Your task to perform on an android device: Show me popular videos on Youtube Image 0: 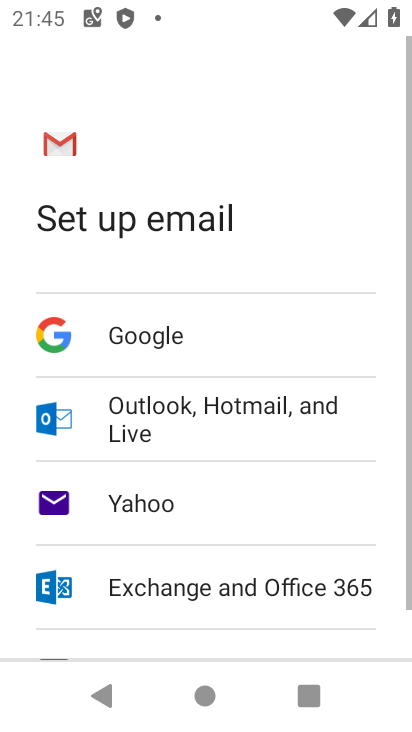
Step 0: press home button
Your task to perform on an android device: Show me popular videos on Youtube Image 1: 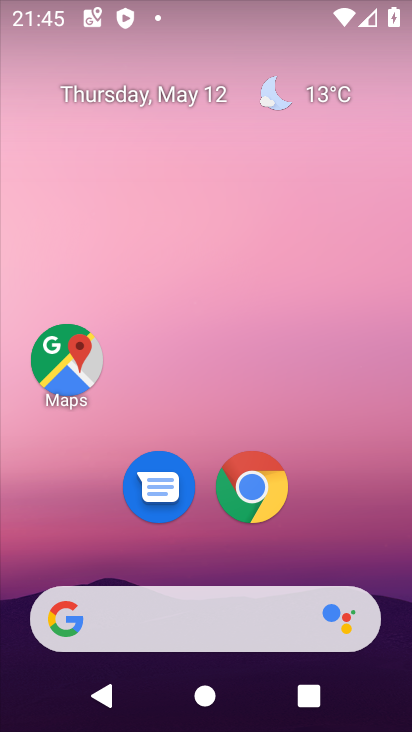
Step 1: drag from (236, 577) to (277, 171)
Your task to perform on an android device: Show me popular videos on Youtube Image 2: 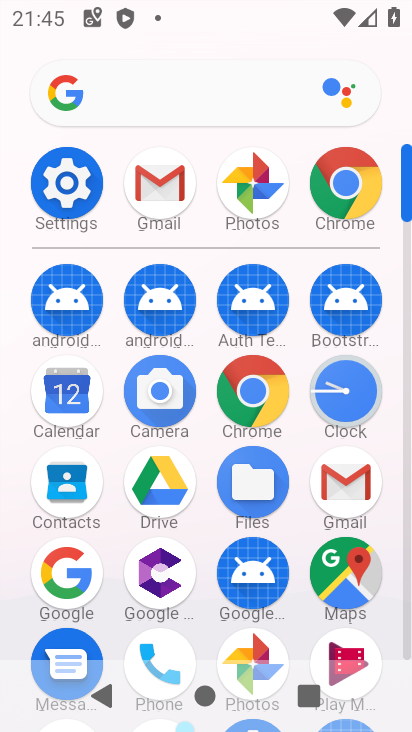
Step 2: drag from (232, 672) to (308, 254)
Your task to perform on an android device: Show me popular videos on Youtube Image 3: 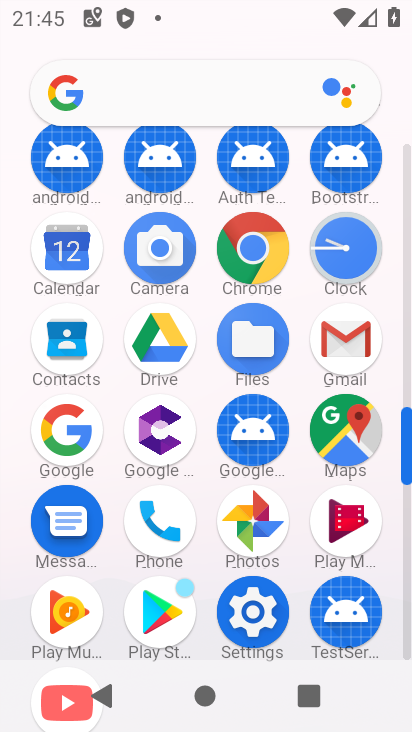
Step 3: drag from (111, 595) to (145, 240)
Your task to perform on an android device: Show me popular videos on Youtube Image 4: 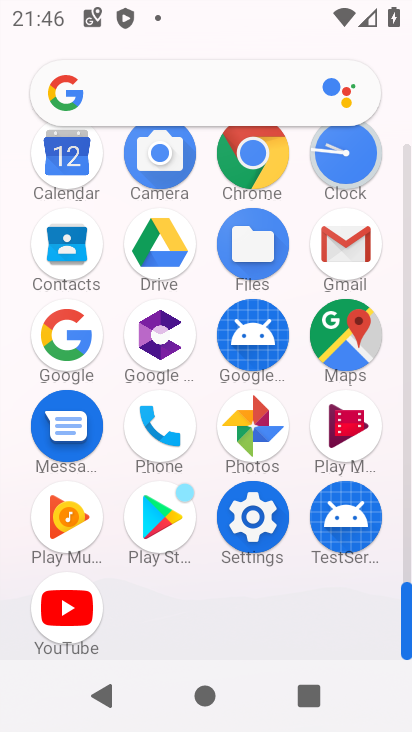
Step 4: click (65, 618)
Your task to perform on an android device: Show me popular videos on Youtube Image 5: 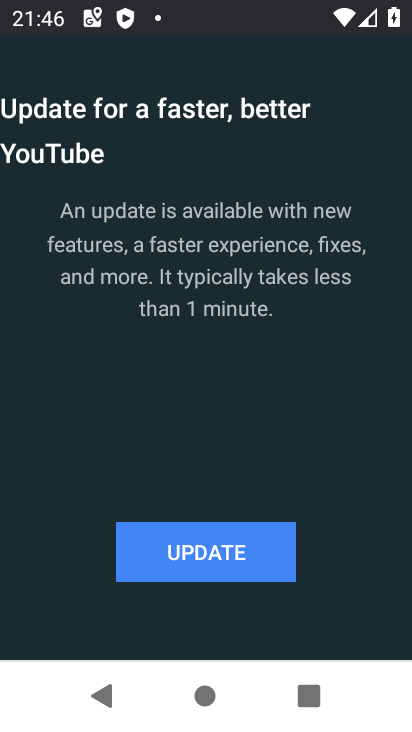
Step 5: click (65, 618)
Your task to perform on an android device: Show me popular videos on Youtube Image 6: 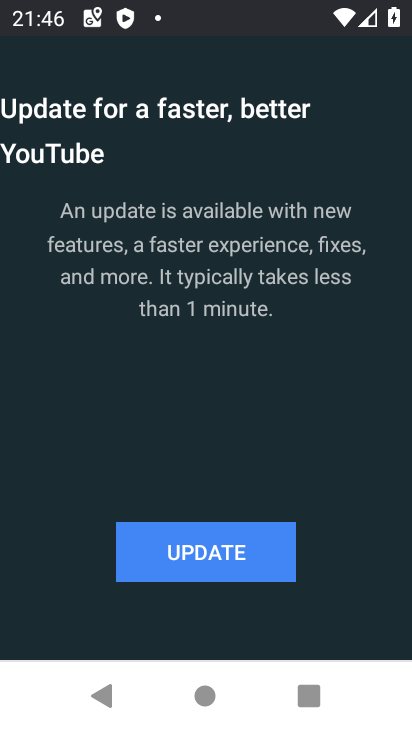
Step 6: click (167, 566)
Your task to perform on an android device: Show me popular videos on Youtube Image 7: 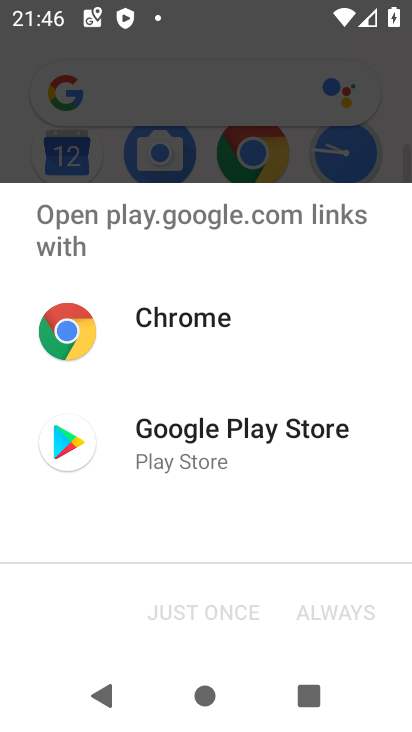
Step 7: click (250, 477)
Your task to perform on an android device: Show me popular videos on Youtube Image 8: 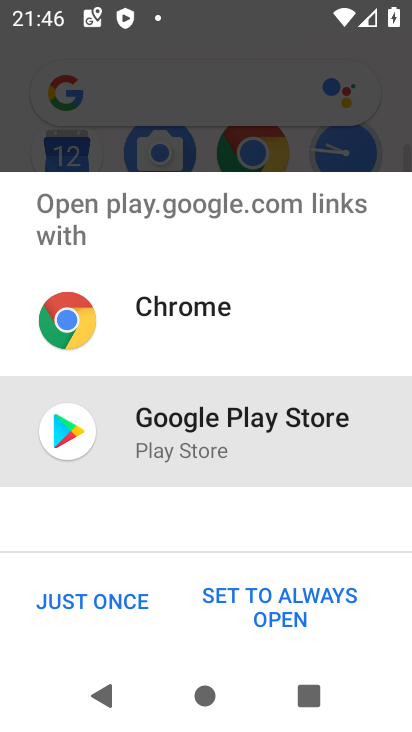
Step 8: click (128, 611)
Your task to perform on an android device: Show me popular videos on Youtube Image 9: 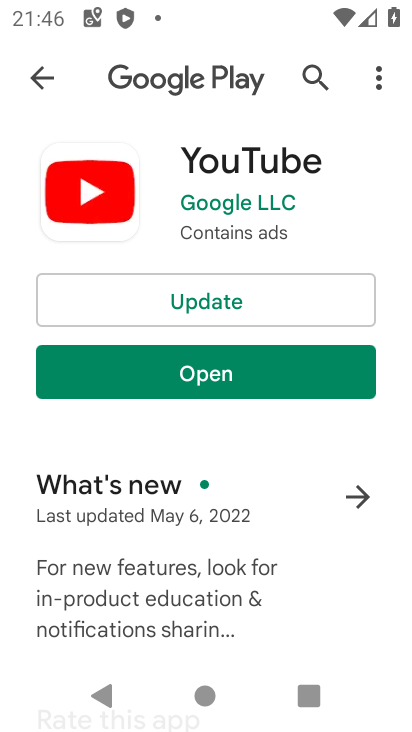
Step 9: click (253, 319)
Your task to perform on an android device: Show me popular videos on Youtube Image 10: 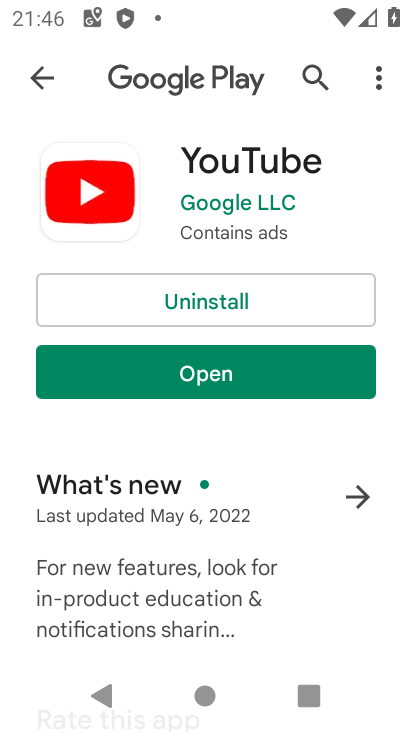
Step 10: click (201, 364)
Your task to perform on an android device: Show me popular videos on Youtube Image 11: 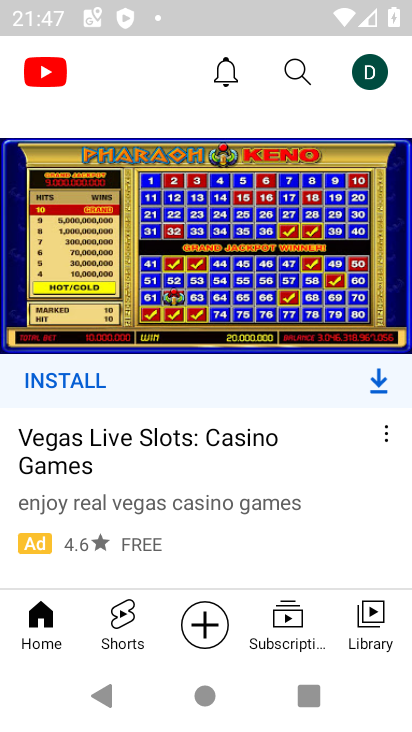
Step 11: drag from (164, 122) to (122, 503)
Your task to perform on an android device: Show me popular videos on Youtube Image 12: 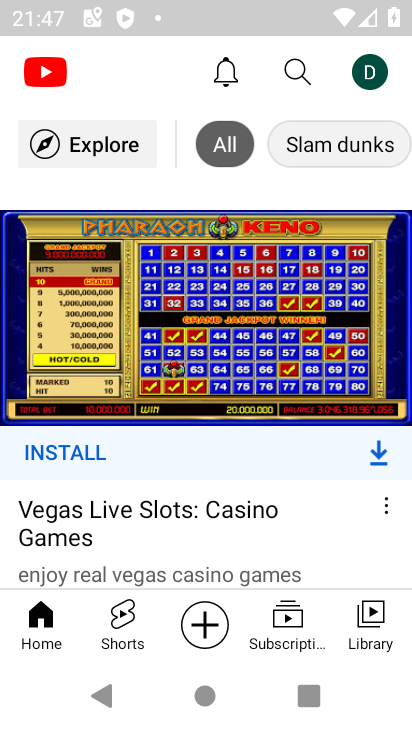
Step 12: click (110, 156)
Your task to perform on an android device: Show me popular videos on Youtube Image 13: 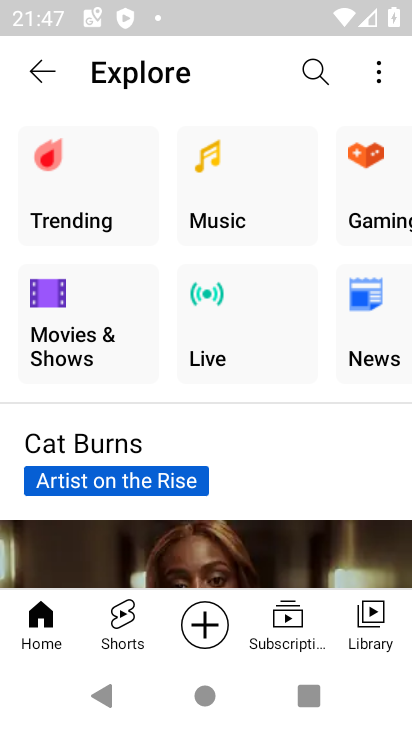
Step 13: click (110, 156)
Your task to perform on an android device: Show me popular videos on Youtube Image 14: 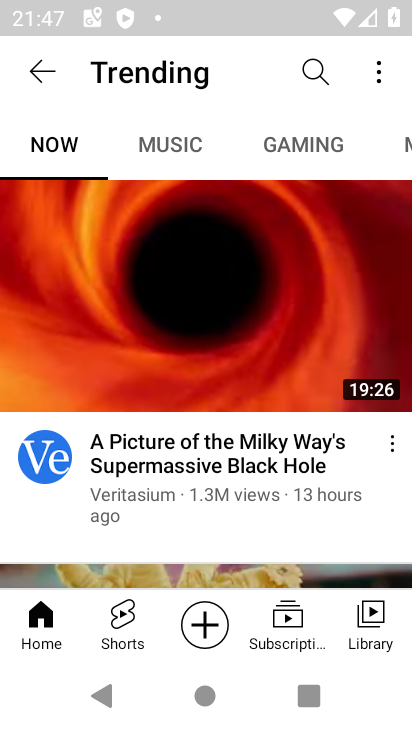
Step 14: task complete